Your task to perform on an android device: find photos in the google photos app Image 0: 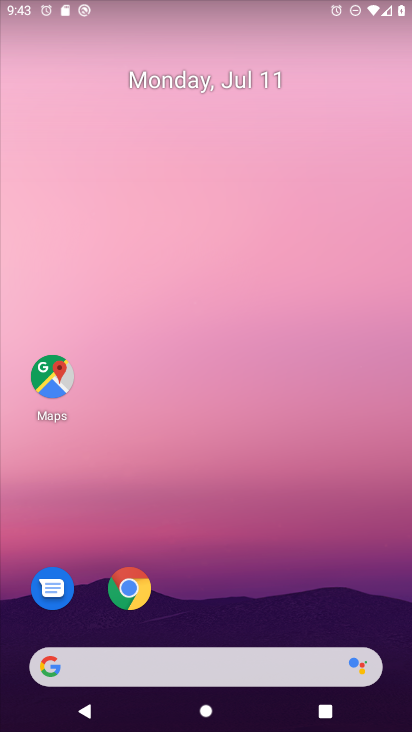
Step 0: drag from (214, 666) to (323, 306)
Your task to perform on an android device: find photos in the google photos app Image 1: 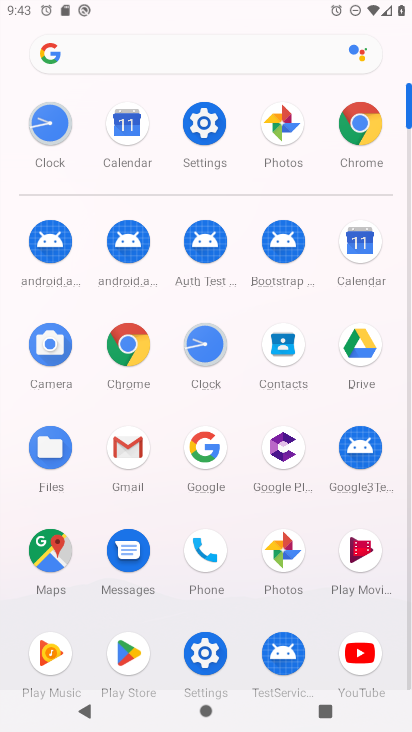
Step 1: click (291, 556)
Your task to perform on an android device: find photos in the google photos app Image 2: 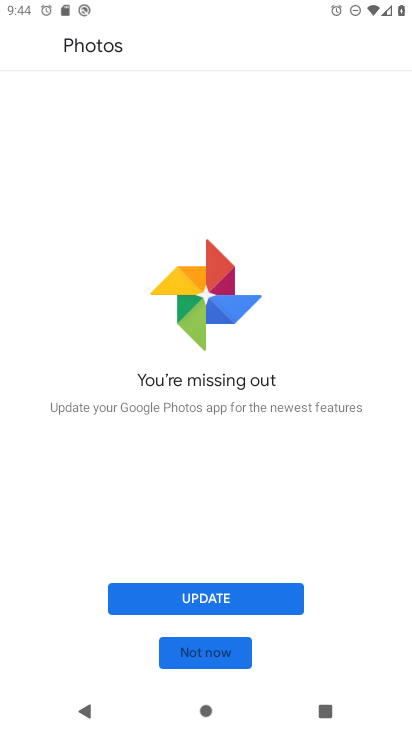
Step 2: click (209, 651)
Your task to perform on an android device: find photos in the google photos app Image 3: 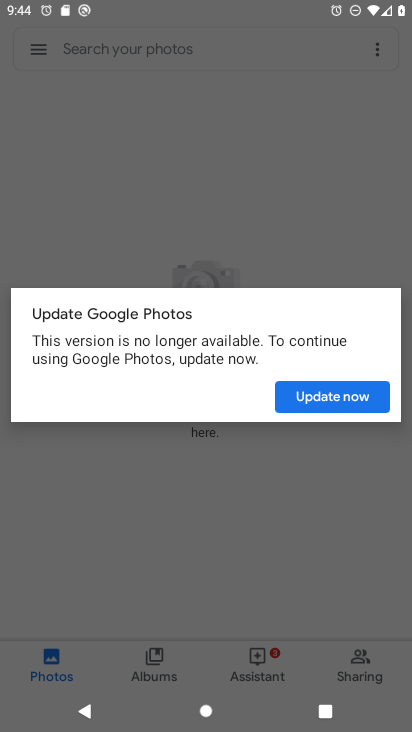
Step 3: click (315, 391)
Your task to perform on an android device: find photos in the google photos app Image 4: 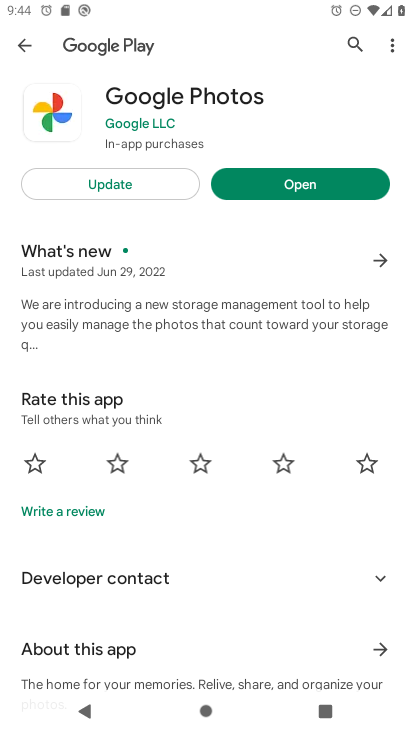
Step 4: click (331, 189)
Your task to perform on an android device: find photos in the google photos app Image 5: 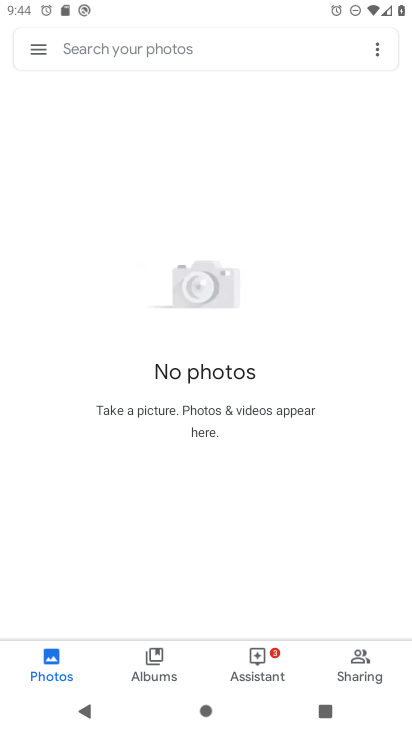
Step 5: task complete